Your task to perform on an android device: change your default location settings in chrome Image 0: 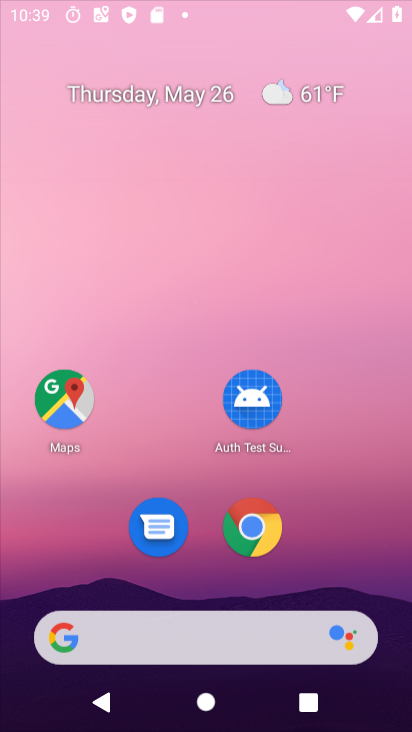
Step 0: drag from (354, 287) to (364, 173)
Your task to perform on an android device: change your default location settings in chrome Image 1: 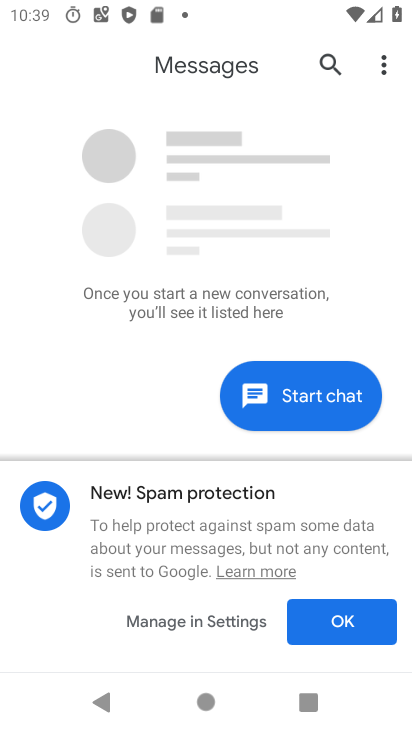
Step 1: press home button
Your task to perform on an android device: change your default location settings in chrome Image 2: 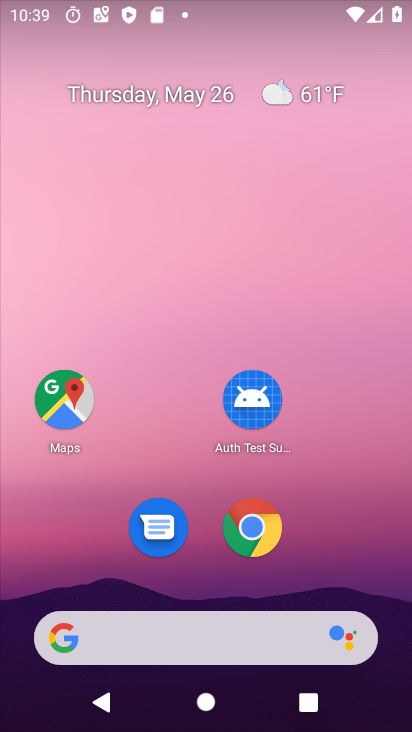
Step 2: drag from (334, 589) to (355, 136)
Your task to perform on an android device: change your default location settings in chrome Image 3: 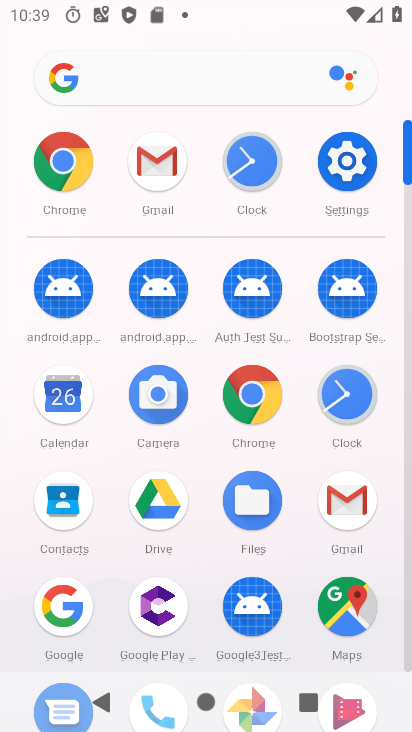
Step 3: click (88, 175)
Your task to perform on an android device: change your default location settings in chrome Image 4: 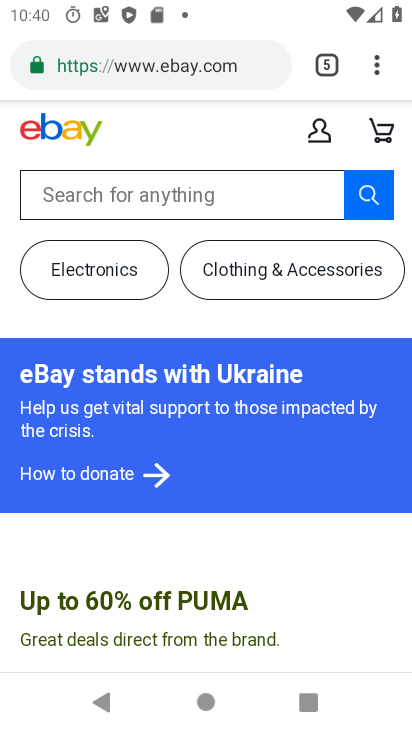
Step 4: drag from (370, 67) to (185, 566)
Your task to perform on an android device: change your default location settings in chrome Image 5: 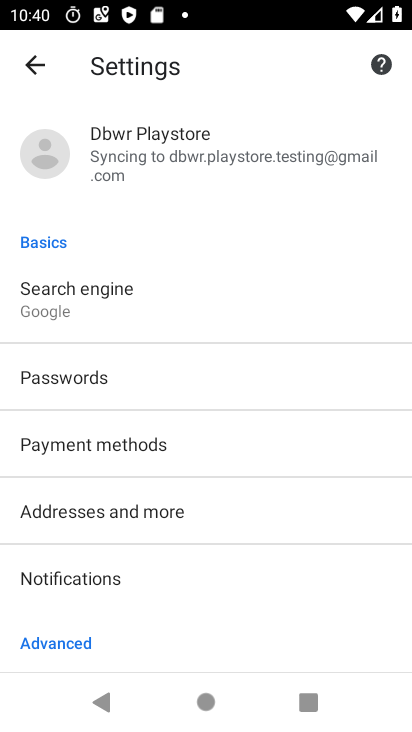
Step 5: click (125, 313)
Your task to perform on an android device: change your default location settings in chrome Image 6: 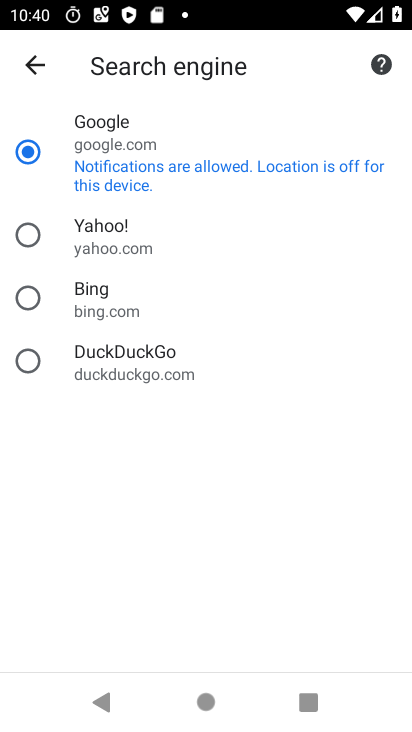
Step 6: task complete